Your task to perform on an android device: Open the calendar app, open the side menu, and click the "Day" option Image 0: 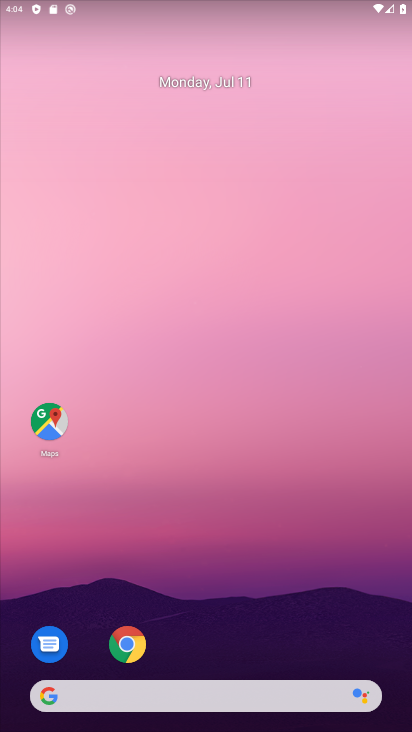
Step 0: drag from (20, 712) to (193, 117)
Your task to perform on an android device: Open the calendar app, open the side menu, and click the "Day" option Image 1: 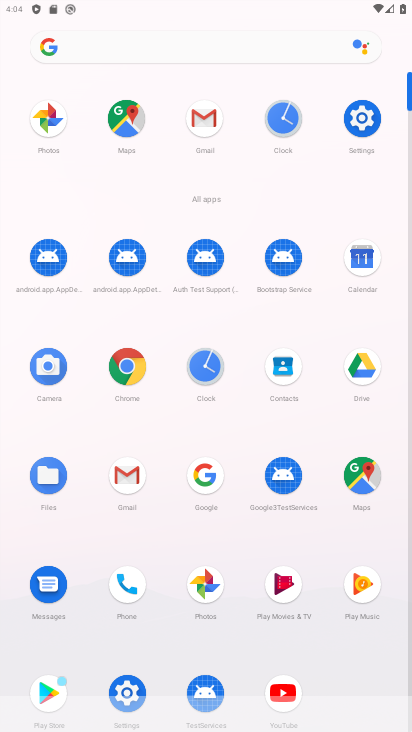
Step 1: click (365, 257)
Your task to perform on an android device: Open the calendar app, open the side menu, and click the "Day" option Image 2: 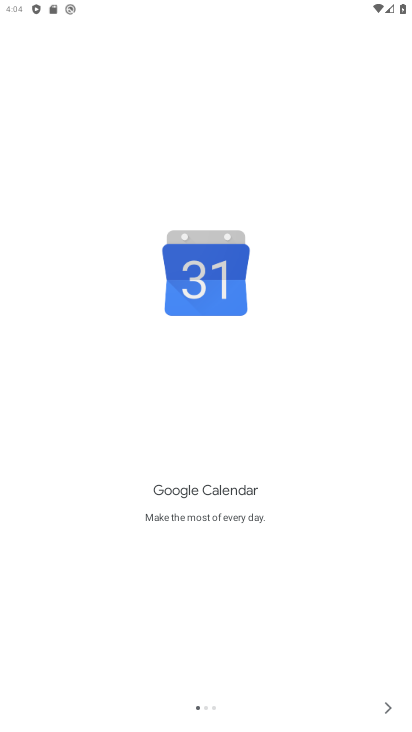
Step 2: click (382, 700)
Your task to perform on an android device: Open the calendar app, open the side menu, and click the "Day" option Image 3: 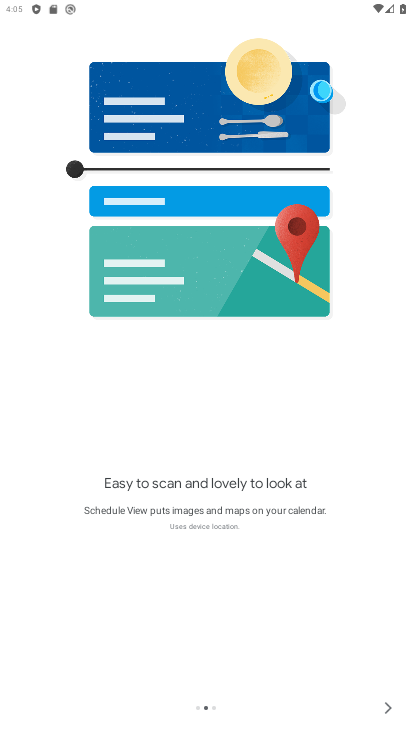
Step 3: click (380, 708)
Your task to perform on an android device: Open the calendar app, open the side menu, and click the "Day" option Image 4: 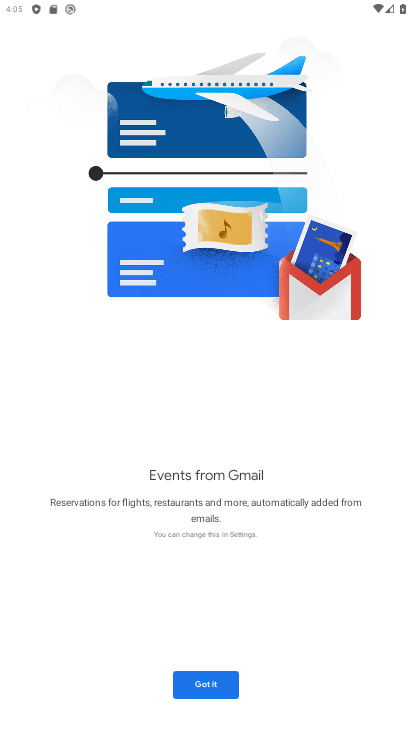
Step 4: click (216, 684)
Your task to perform on an android device: Open the calendar app, open the side menu, and click the "Day" option Image 5: 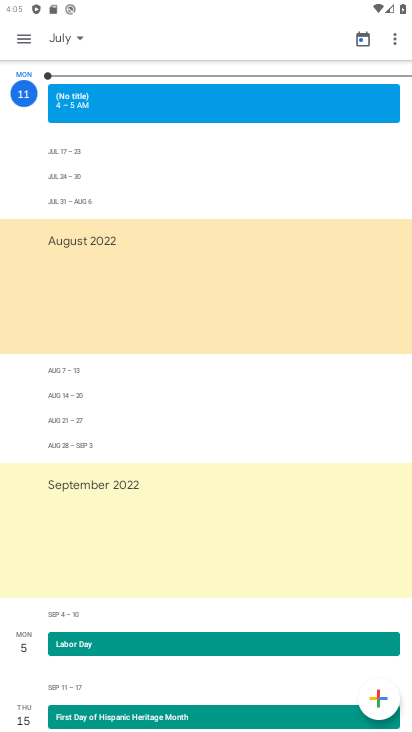
Step 5: click (20, 36)
Your task to perform on an android device: Open the calendar app, open the side menu, and click the "Day" option Image 6: 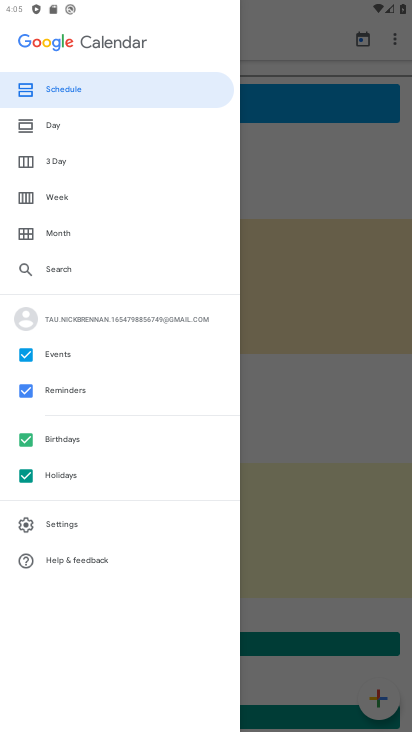
Step 6: click (58, 127)
Your task to perform on an android device: Open the calendar app, open the side menu, and click the "Day" option Image 7: 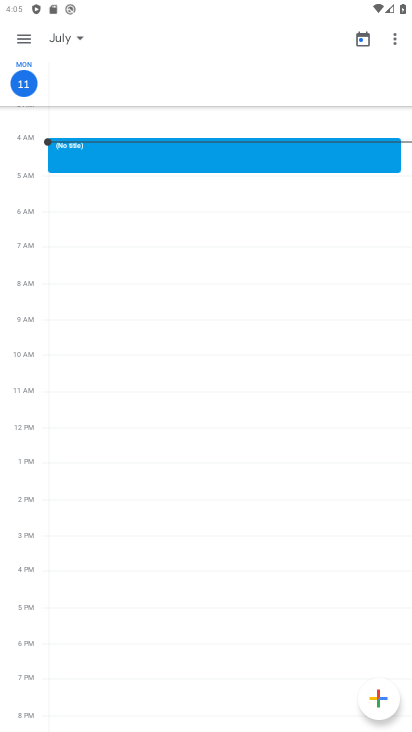
Step 7: task complete